Your task to perform on an android device: What is the recent news? Image 0: 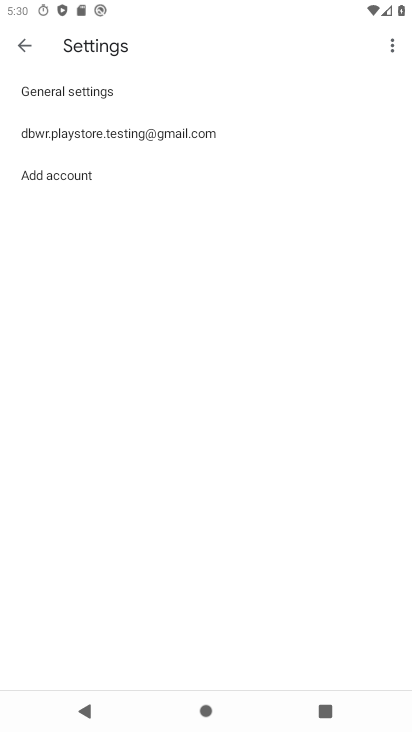
Step 0: press home button
Your task to perform on an android device: What is the recent news? Image 1: 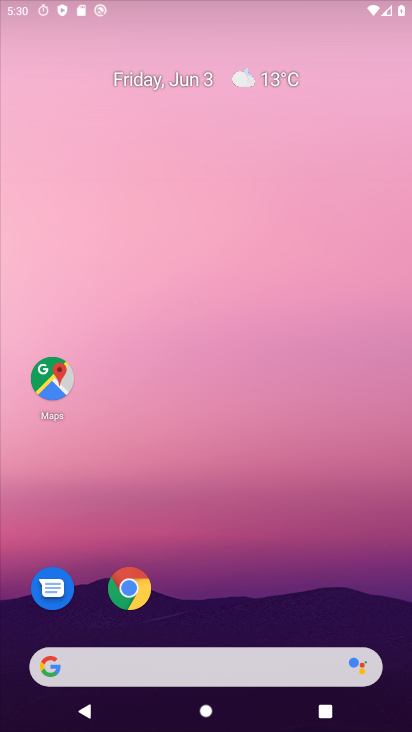
Step 1: drag from (216, 533) to (206, 119)
Your task to perform on an android device: What is the recent news? Image 2: 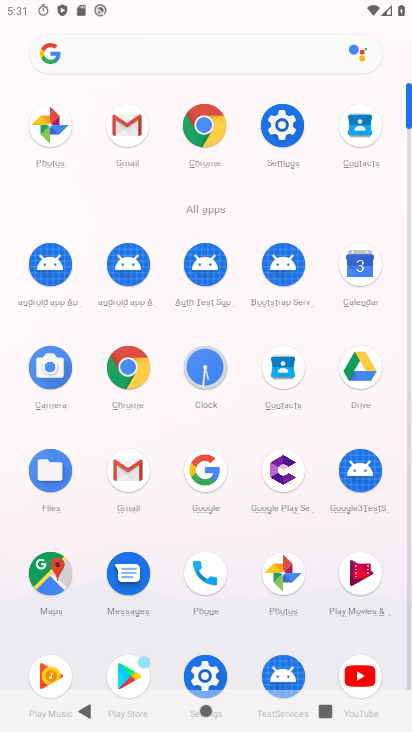
Step 2: click (190, 485)
Your task to perform on an android device: What is the recent news? Image 3: 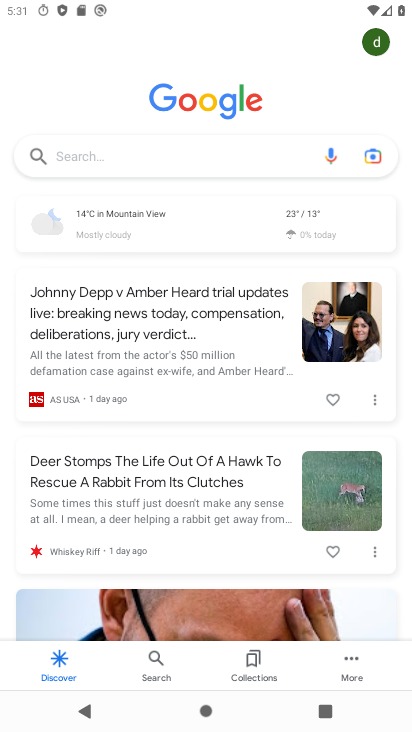
Step 3: task complete